Your task to perform on an android device: toggle sleep mode Image 0: 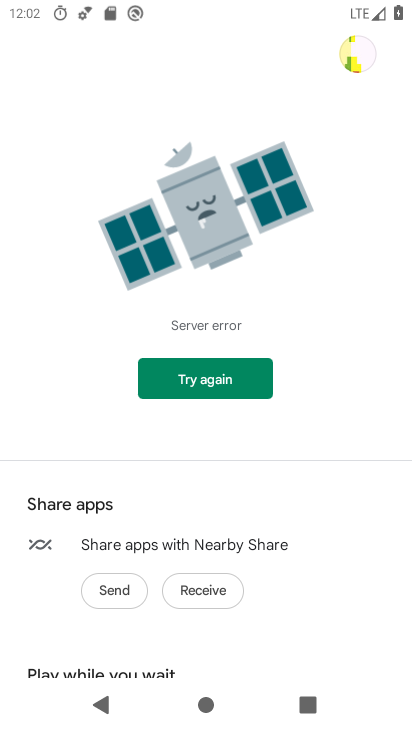
Step 0: drag from (274, 11) to (197, 614)
Your task to perform on an android device: toggle sleep mode Image 1: 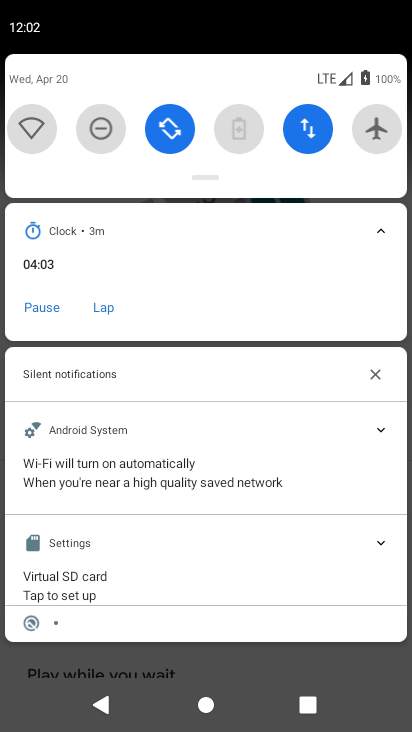
Step 1: drag from (202, 93) to (210, 704)
Your task to perform on an android device: toggle sleep mode Image 2: 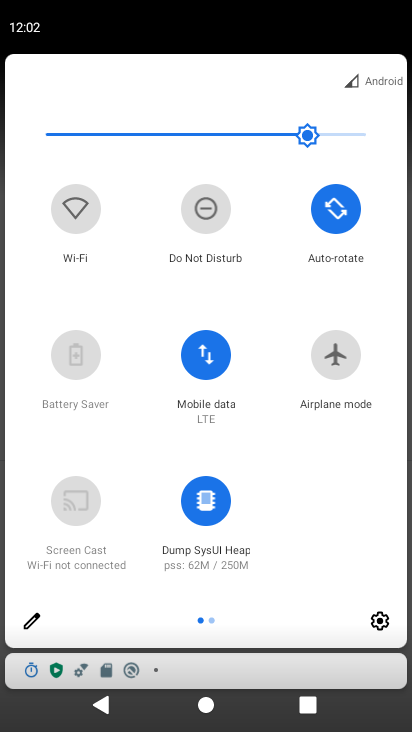
Step 2: click (369, 628)
Your task to perform on an android device: toggle sleep mode Image 3: 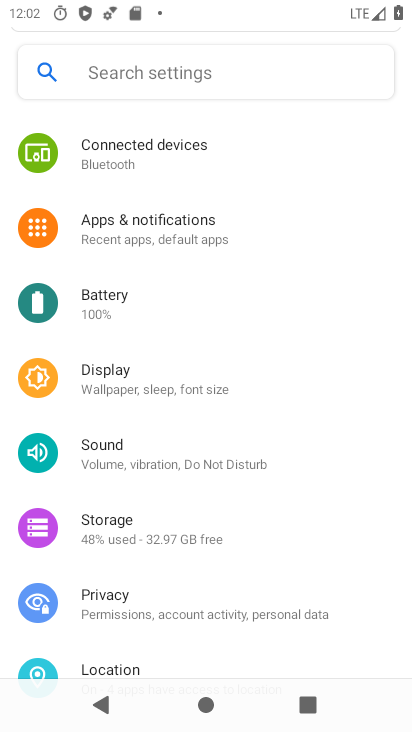
Step 3: click (127, 562)
Your task to perform on an android device: toggle sleep mode Image 4: 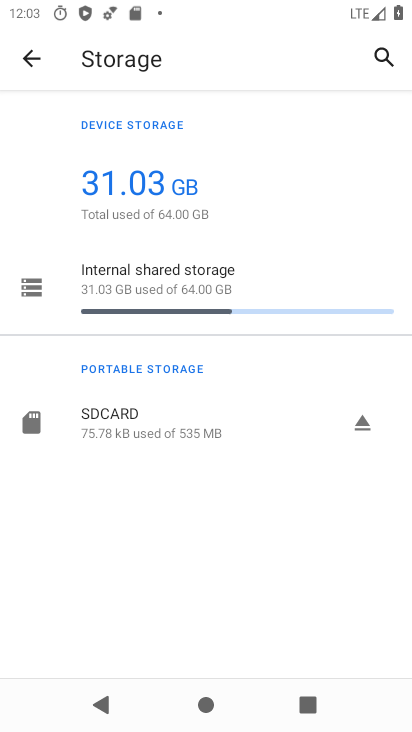
Step 4: task complete